Your task to perform on an android device: check out phone information Image 0: 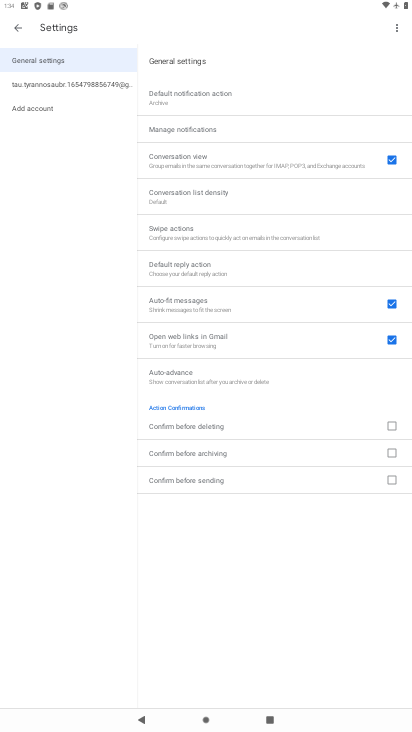
Step 0: press home button
Your task to perform on an android device: check out phone information Image 1: 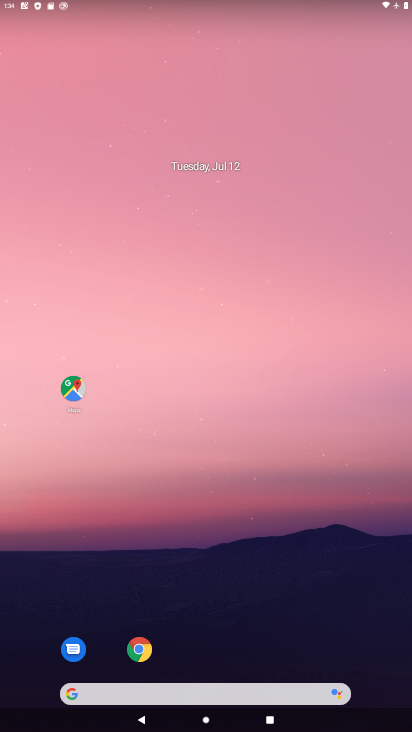
Step 1: drag from (281, 641) to (178, 34)
Your task to perform on an android device: check out phone information Image 2: 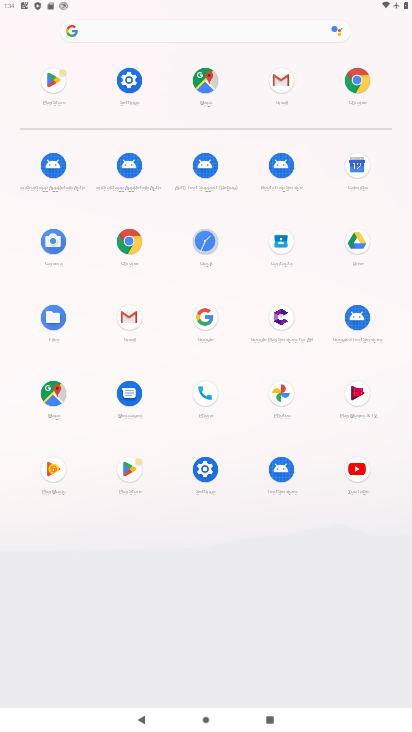
Step 2: click (119, 85)
Your task to perform on an android device: check out phone information Image 3: 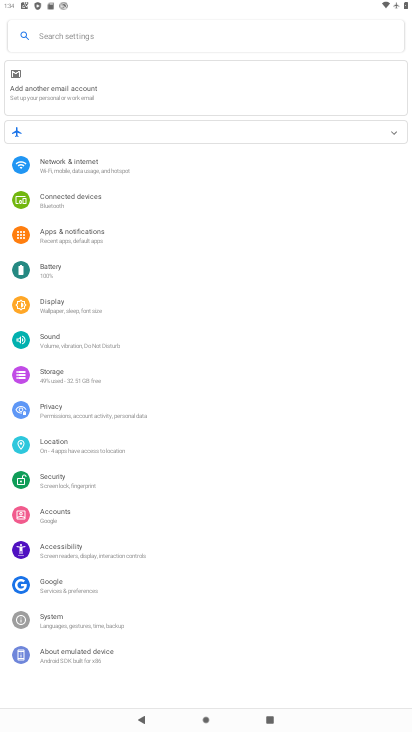
Step 3: click (110, 252)
Your task to perform on an android device: check out phone information Image 4: 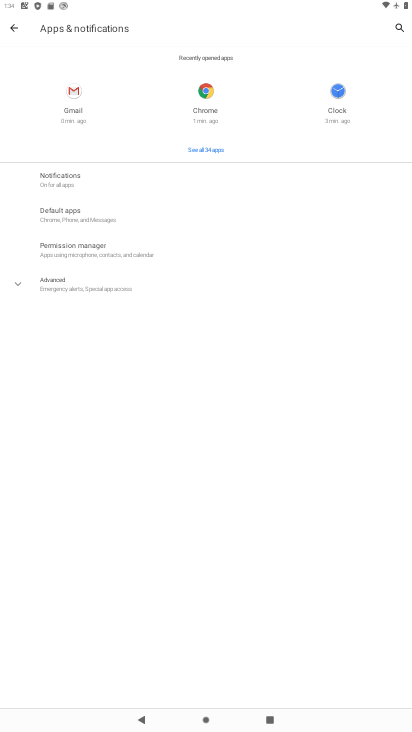
Step 4: click (6, 33)
Your task to perform on an android device: check out phone information Image 5: 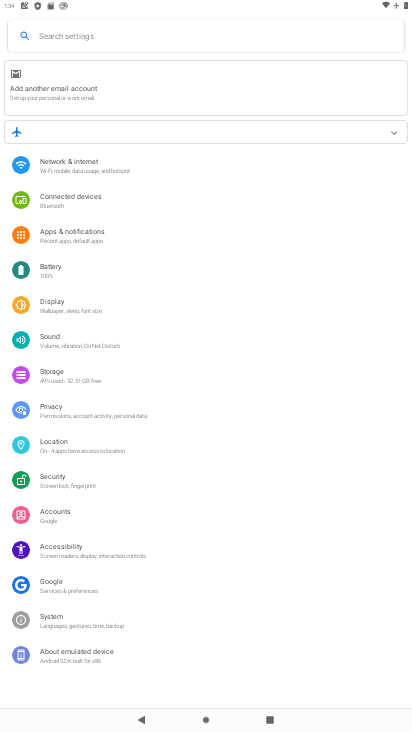
Step 5: click (130, 657)
Your task to perform on an android device: check out phone information Image 6: 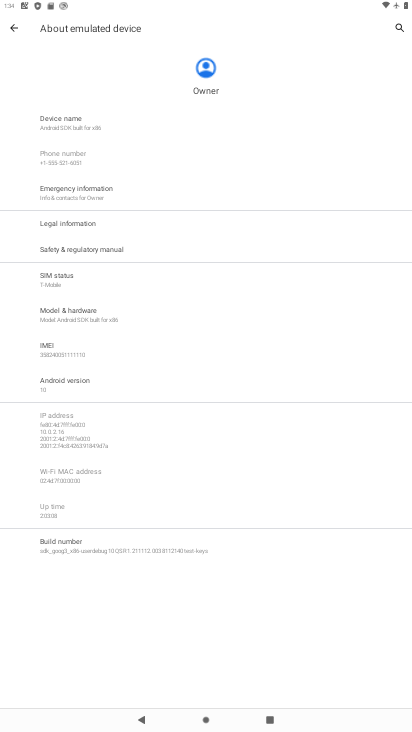
Step 6: task complete